Your task to perform on an android device: refresh tabs in the chrome app Image 0: 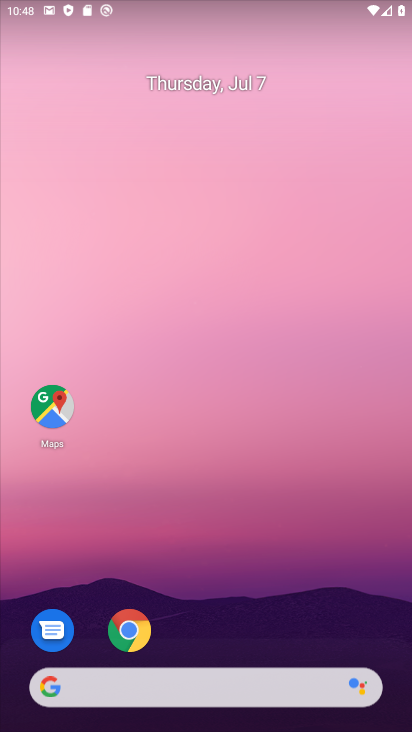
Step 0: click (126, 623)
Your task to perform on an android device: refresh tabs in the chrome app Image 1: 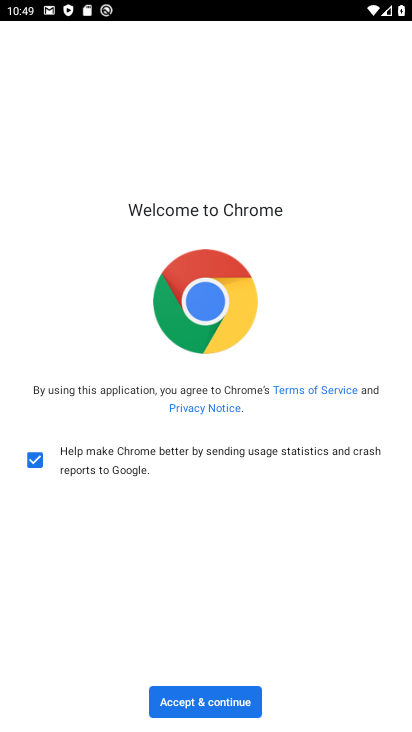
Step 1: click (199, 701)
Your task to perform on an android device: refresh tabs in the chrome app Image 2: 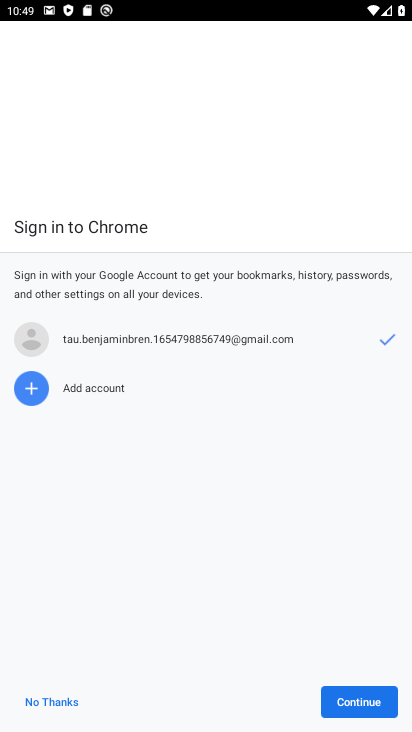
Step 2: click (352, 707)
Your task to perform on an android device: refresh tabs in the chrome app Image 3: 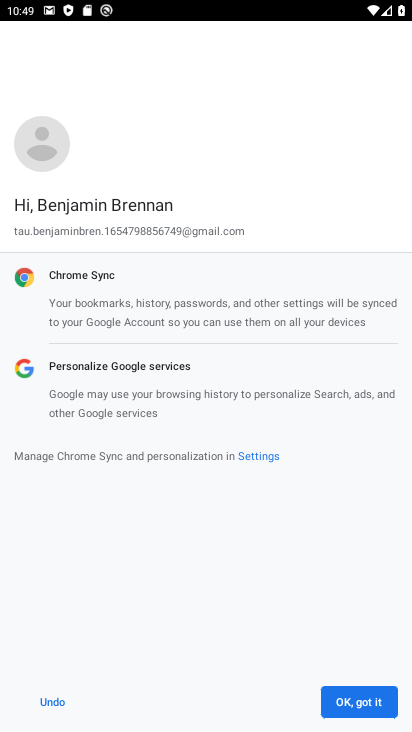
Step 3: click (349, 698)
Your task to perform on an android device: refresh tabs in the chrome app Image 4: 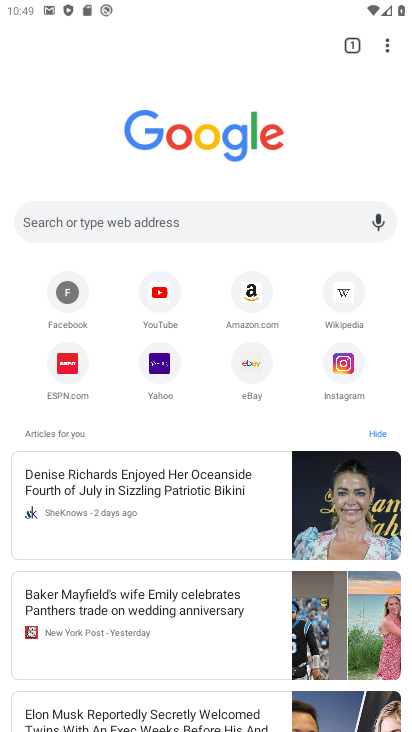
Step 4: click (386, 47)
Your task to perform on an android device: refresh tabs in the chrome app Image 5: 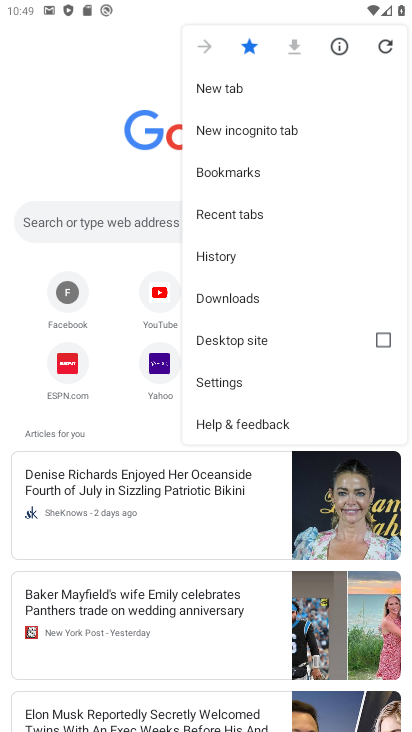
Step 5: click (385, 45)
Your task to perform on an android device: refresh tabs in the chrome app Image 6: 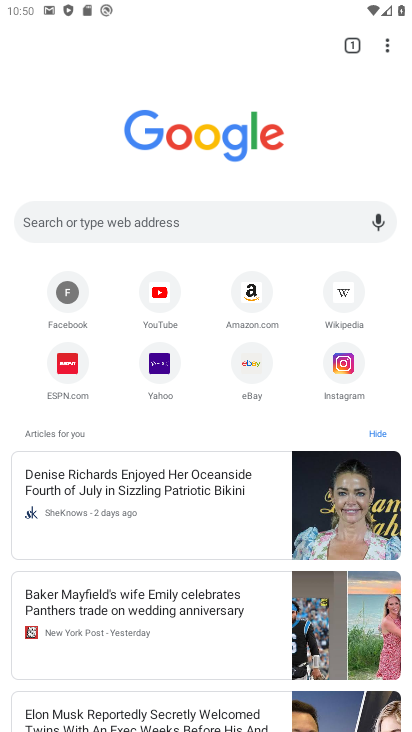
Step 6: task complete